Your task to perform on an android device: Open Yahoo.com Image 0: 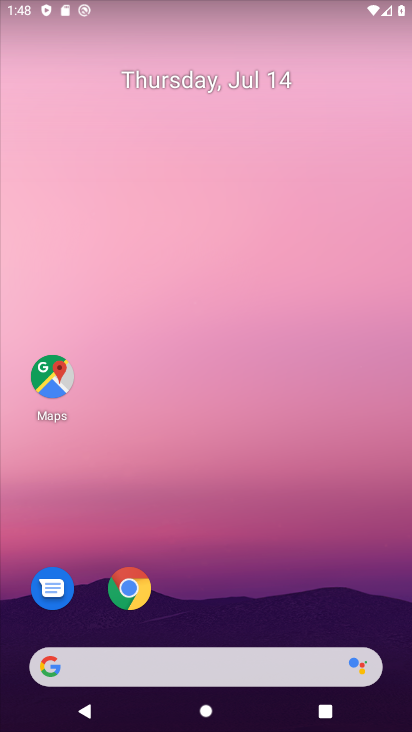
Step 0: click (138, 584)
Your task to perform on an android device: Open Yahoo.com Image 1: 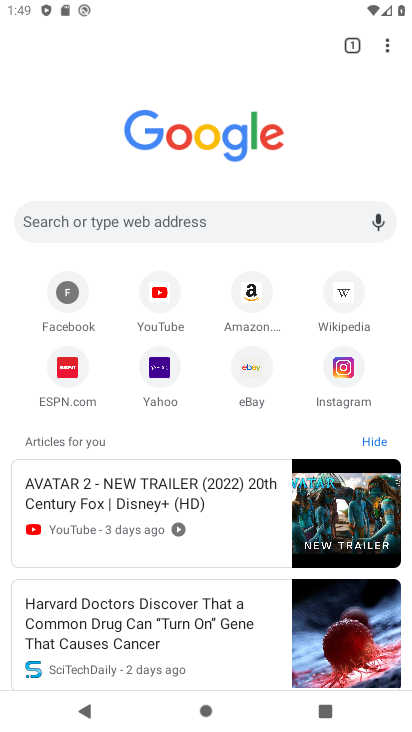
Step 1: click (150, 394)
Your task to perform on an android device: Open Yahoo.com Image 2: 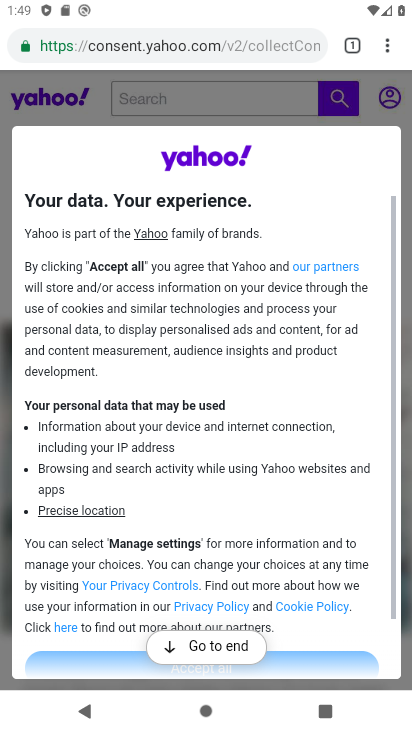
Step 2: task complete